Your task to perform on an android device: refresh tabs in the chrome app Image 0: 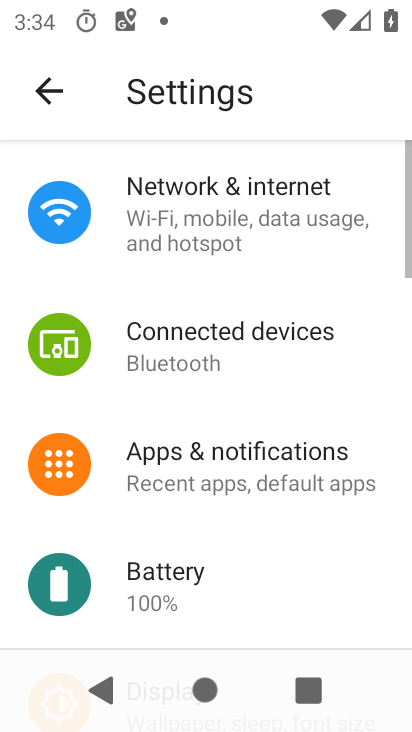
Step 0: press home button
Your task to perform on an android device: refresh tabs in the chrome app Image 1: 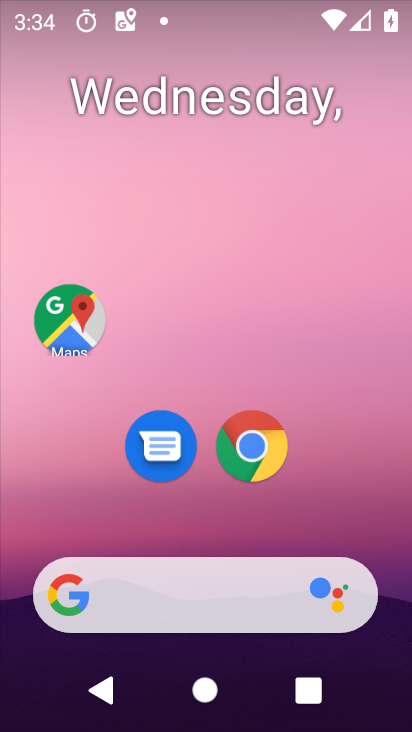
Step 1: click (253, 454)
Your task to perform on an android device: refresh tabs in the chrome app Image 2: 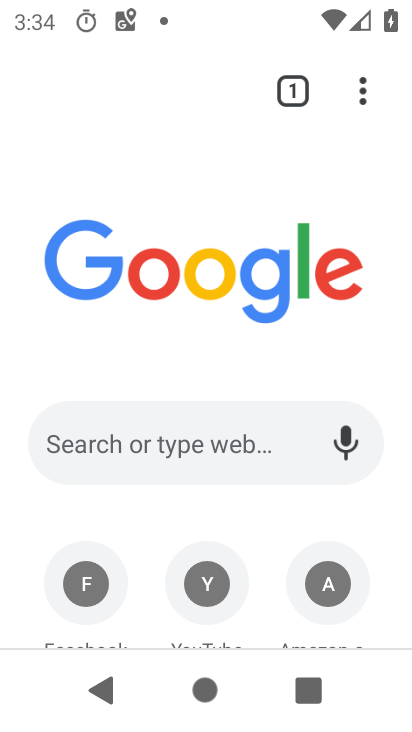
Step 2: click (357, 92)
Your task to perform on an android device: refresh tabs in the chrome app Image 3: 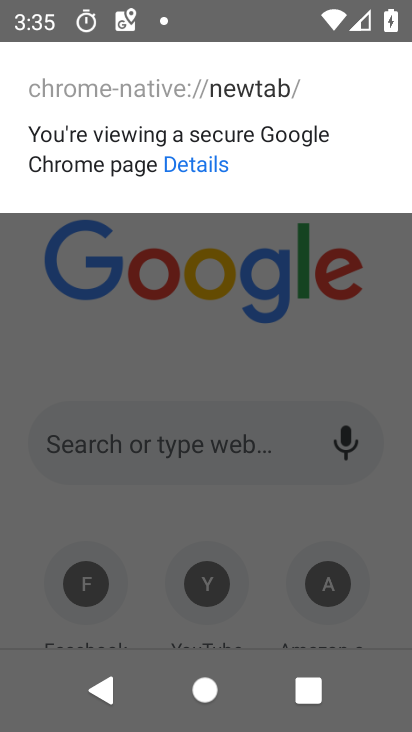
Step 3: click (266, 275)
Your task to perform on an android device: refresh tabs in the chrome app Image 4: 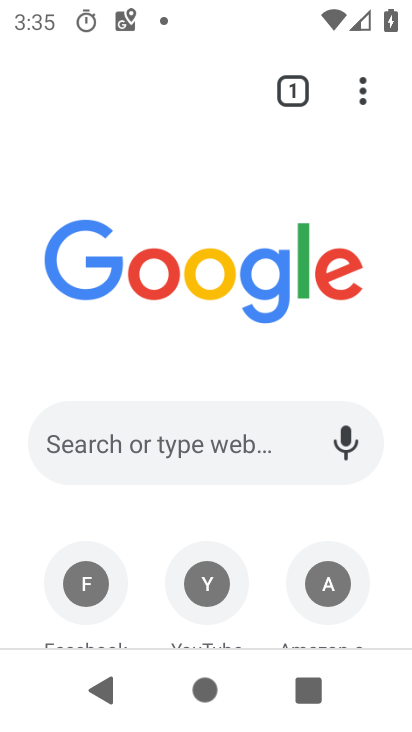
Step 4: click (358, 94)
Your task to perform on an android device: refresh tabs in the chrome app Image 5: 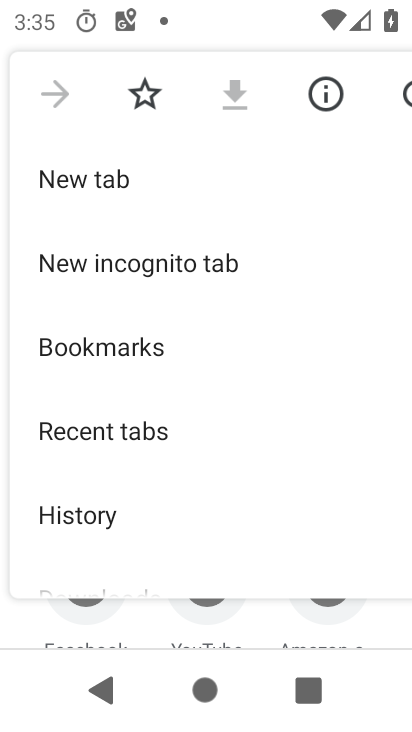
Step 5: click (403, 94)
Your task to perform on an android device: refresh tabs in the chrome app Image 6: 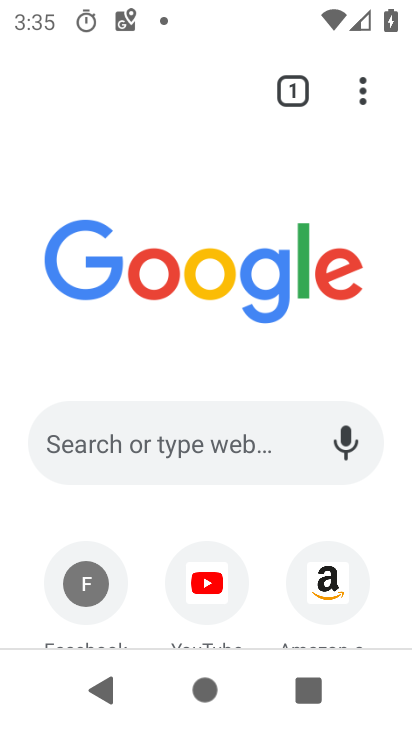
Step 6: click (359, 95)
Your task to perform on an android device: refresh tabs in the chrome app Image 7: 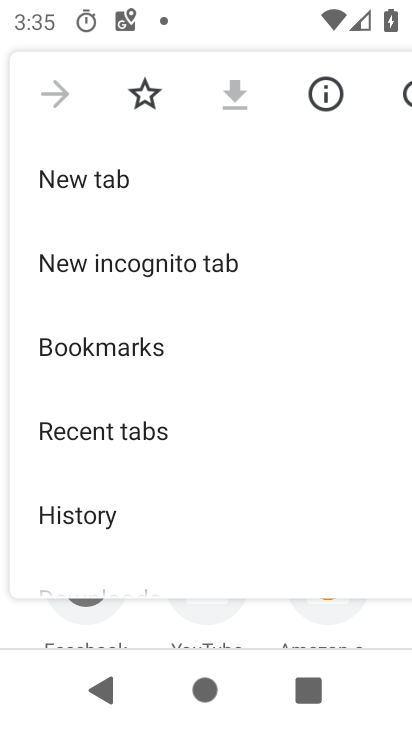
Step 7: click (408, 98)
Your task to perform on an android device: refresh tabs in the chrome app Image 8: 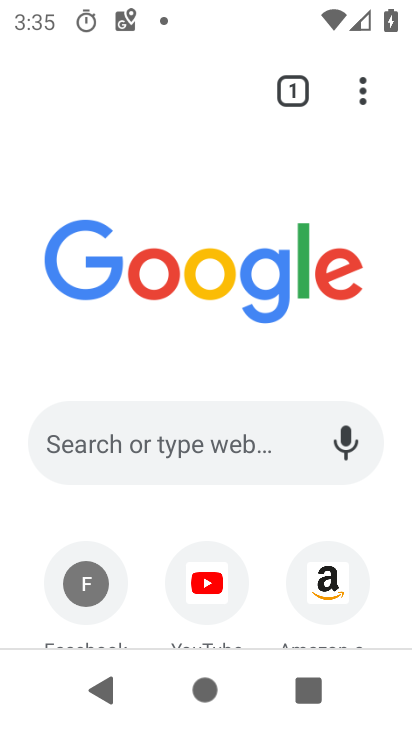
Step 8: task complete